Your task to perform on an android device: Open privacy settings Image 0: 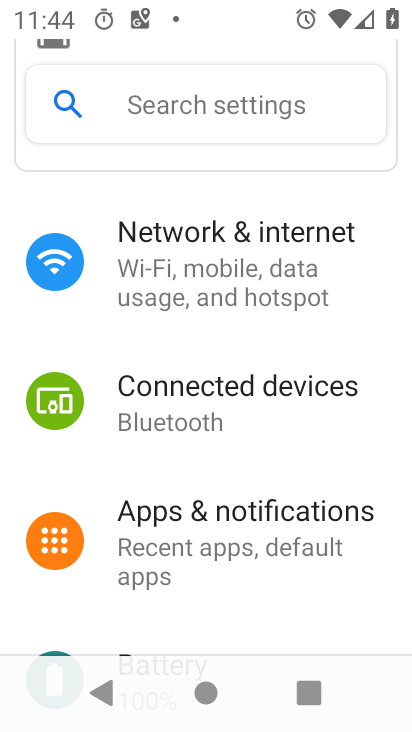
Step 0: press home button
Your task to perform on an android device: Open privacy settings Image 1: 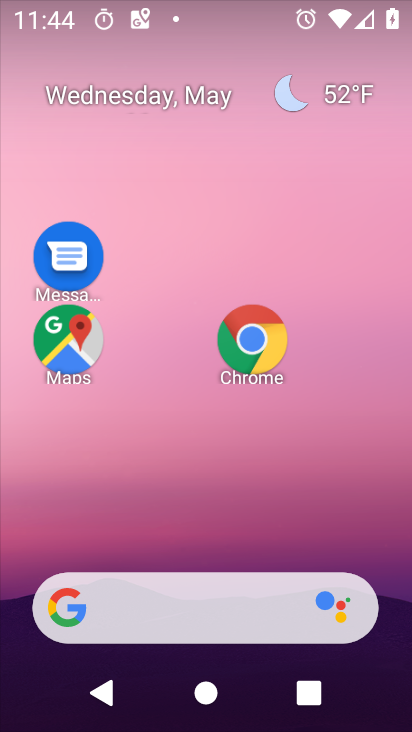
Step 1: click (248, 334)
Your task to perform on an android device: Open privacy settings Image 2: 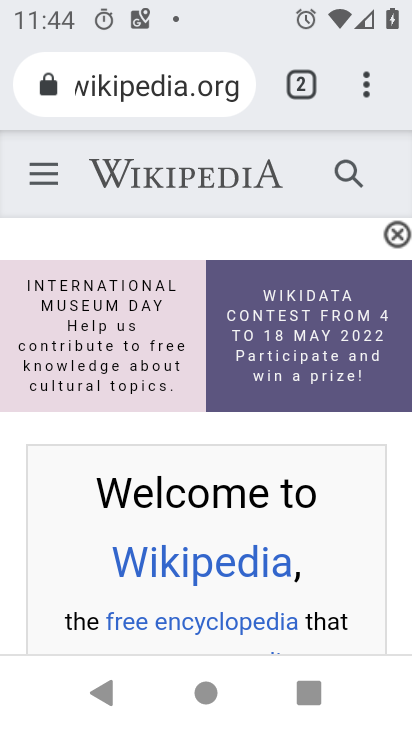
Step 2: click (361, 87)
Your task to perform on an android device: Open privacy settings Image 3: 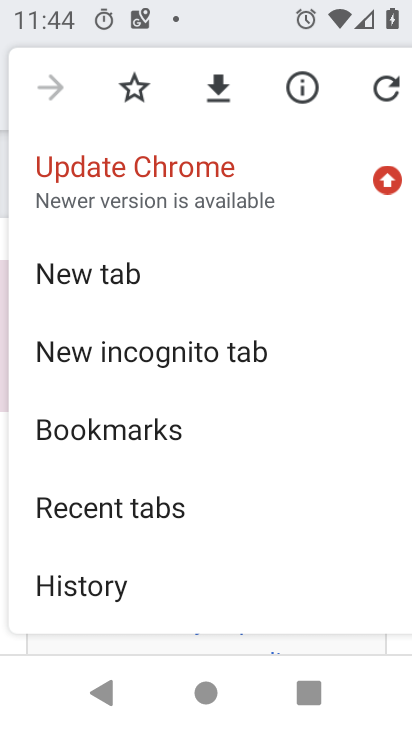
Step 3: drag from (204, 530) to (221, 62)
Your task to perform on an android device: Open privacy settings Image 4: 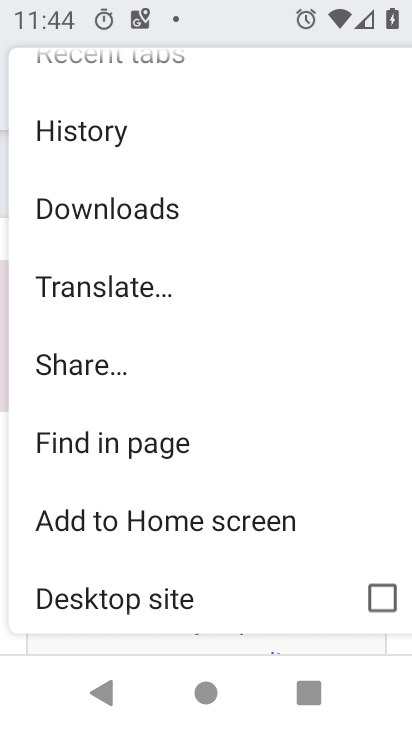
Step 4: drag from (145, 529) to (171, 151)
Your task to perform on an android device: Open privacy settings Image 5: 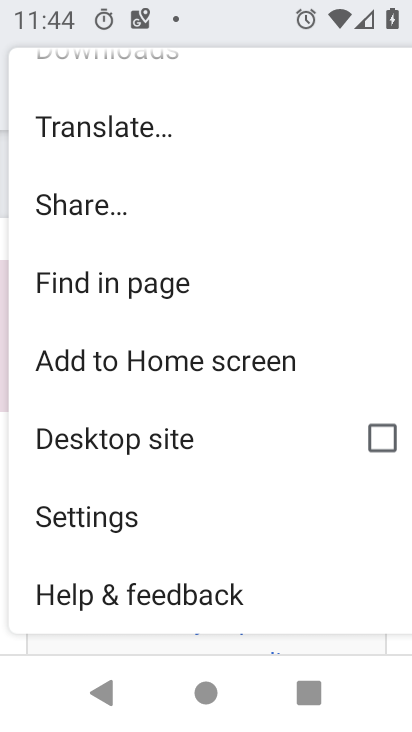
Step 5: click (110, 505)
Your task to perform on an android device: Open privacy settings Image 6: 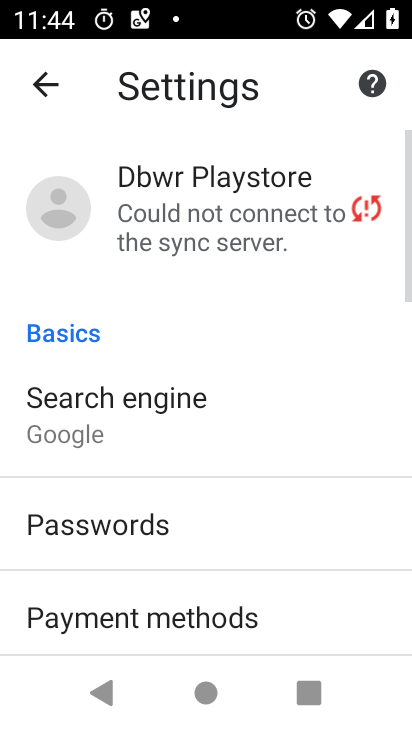
Step 6: drag from (207, 548) to (176, 109)
Your task to perform on an android device: Open privacy settings Image 7: 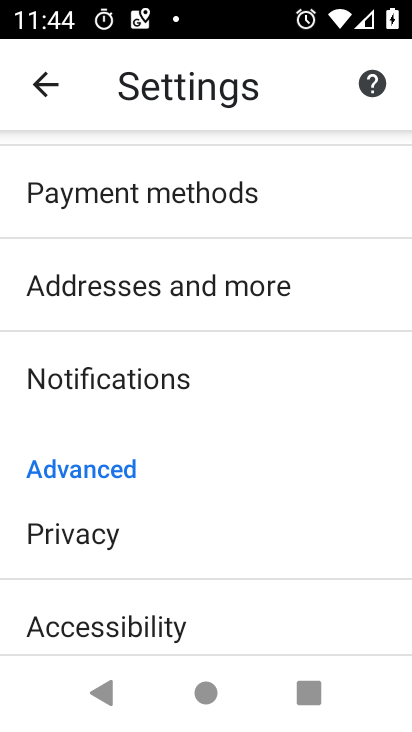
Step 7: click (89, 528)
Your task to perform on an android device: Open privacy settings Image 8: 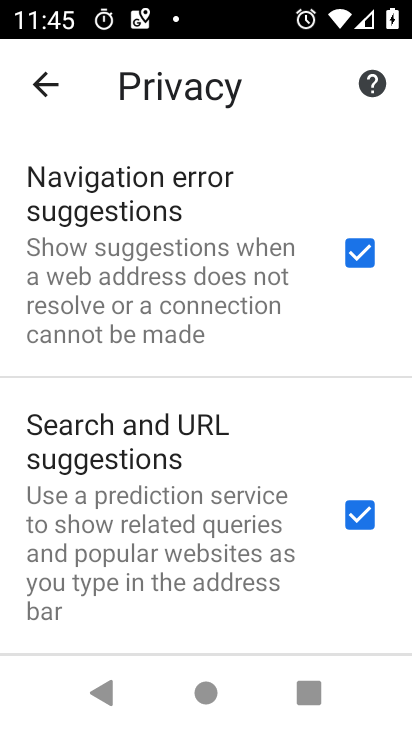
Step 8: task complete